Your task to perform on an android device: make emails show in primary in the gmail app Image 0: 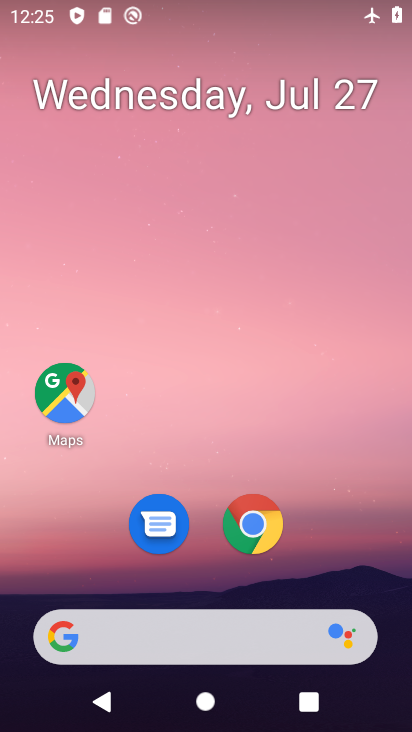
Step 0: drag from (345, 540) to (338, 90)
Your task to perform on an android device: make emails show in primary in the gmail app Image 1: 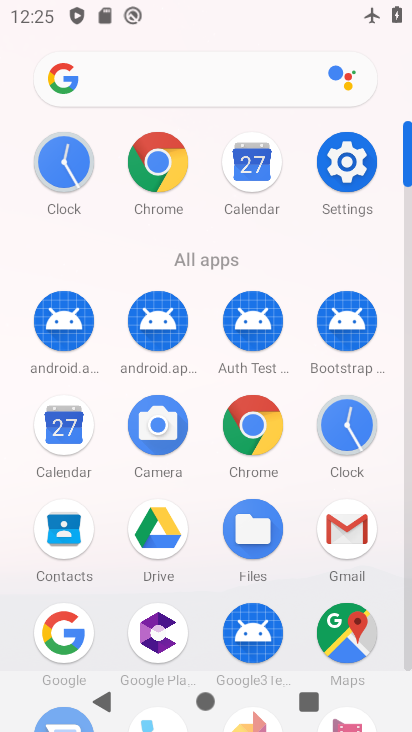
Step 1: click (361, 522)
Your task to perform on an android device: make emails show in primary in the gmail app Image 2: 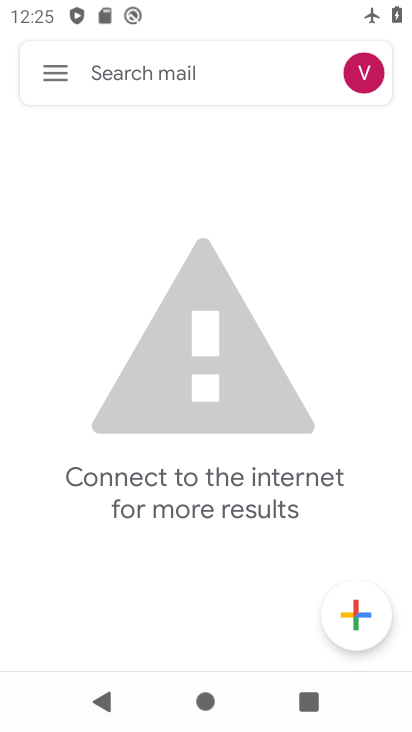
Step 2: click (54, 62)
Your task to perform on an android device: make emails show in primary in the gmail app Image 3: 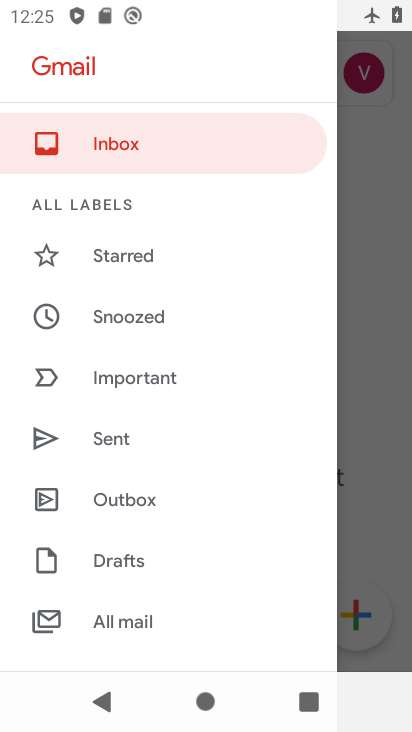
Step 3: drag from (133, 572) to (234, 55)
Your task to perform on an android device: make emails show in primary in the gmail app Image 4: 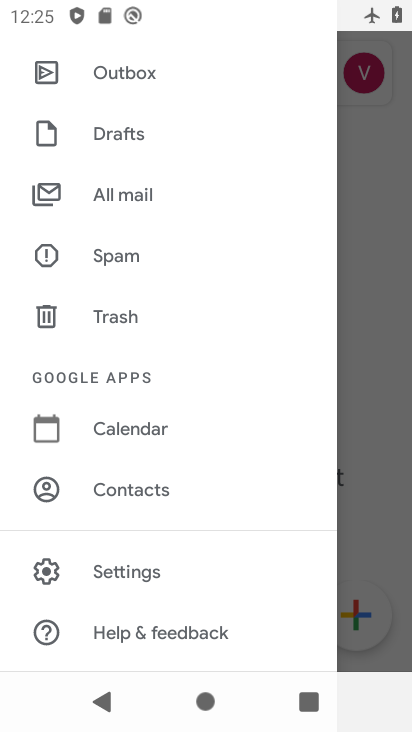
Step 4: click (144, 578)
Your task to perform on an android device: make emails show in primary in the gmail app Image 5: 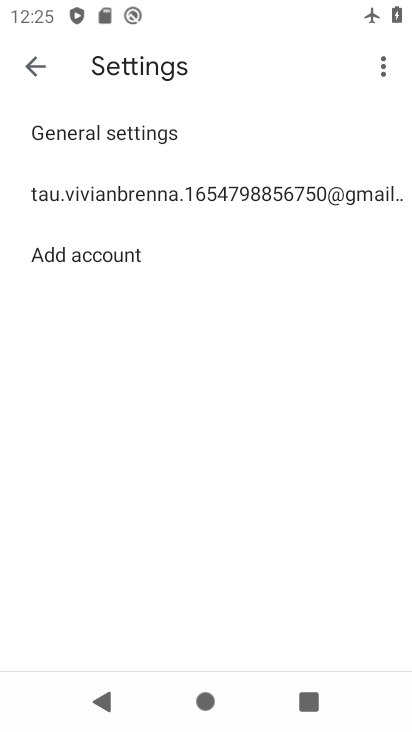
Step 5: click (249, 192)
Your task to perform on an android device: make emails show in primary in the gmail app Image 6: 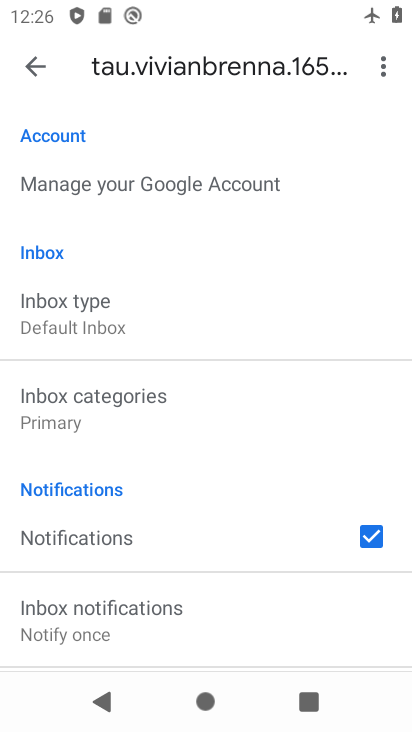
Step 6: task complete